Your task to perform on an android device: delete location history Image 0: 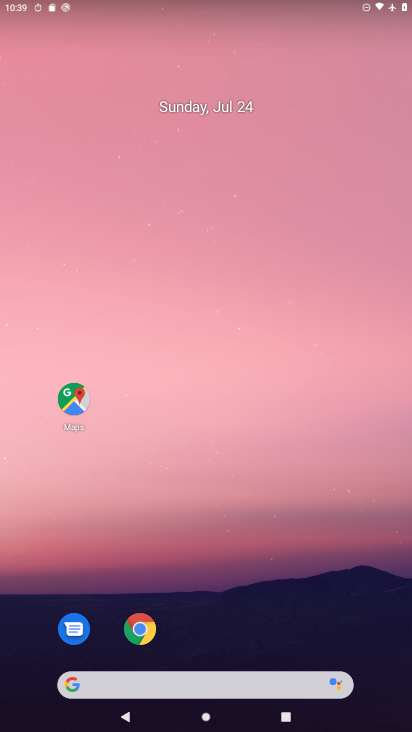
Step 0: drag from (184, 639) to (200, 104)
Your task to perform on an android device: delete location history Image 1: 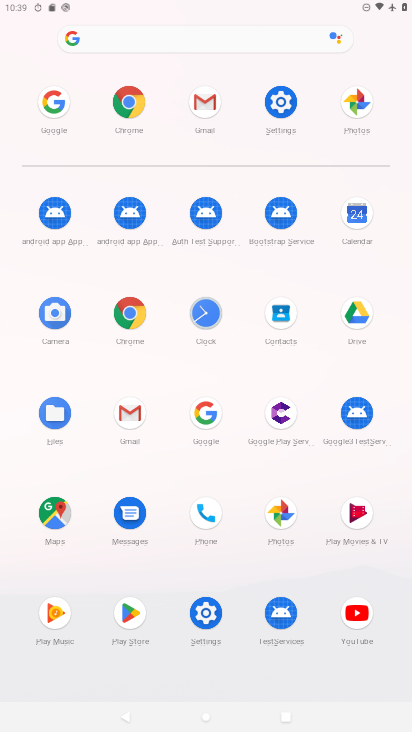
Step 1: click (280, 112)
Your task to perform on an android device: delete location history Image 2: 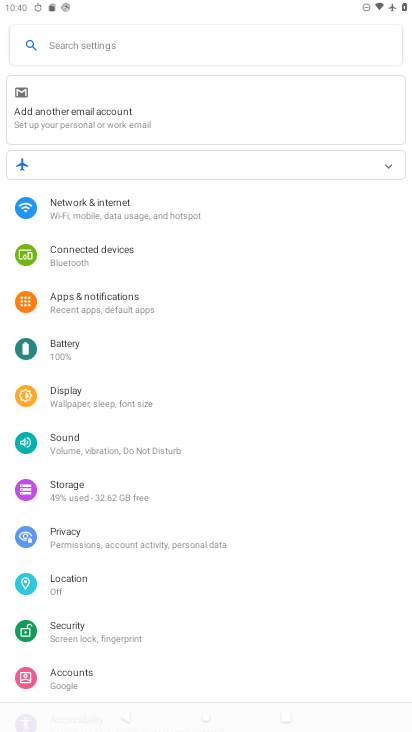
Step 2: click (112, 590)
Your task to perform on an android device: delete location history Image 3: 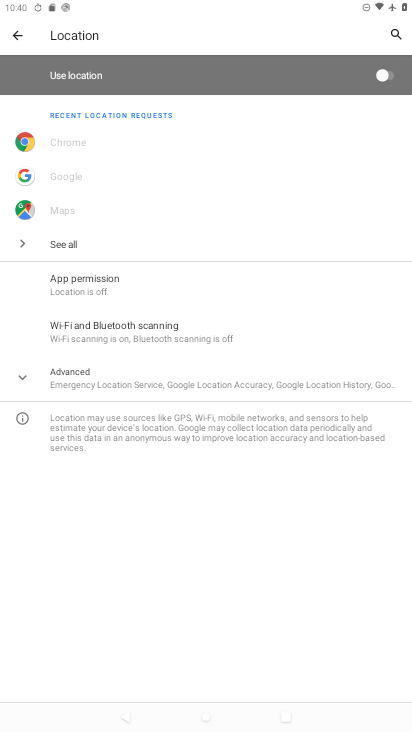
Step 3: click (155, 386)
Your task to perform on an android device: delete location history Image 4: 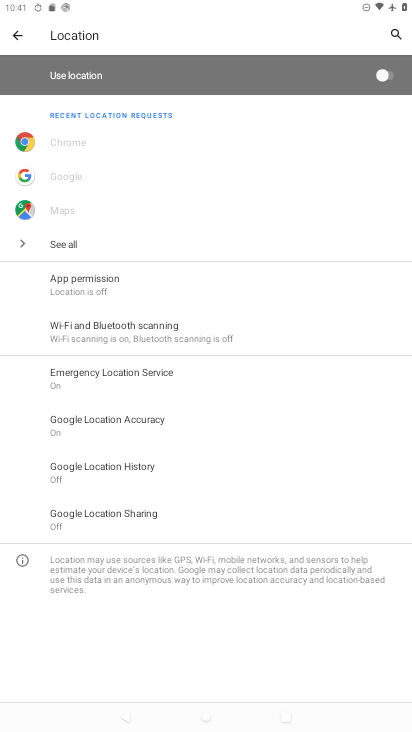
Step 4: click (136, 474)
Your task to perform on an android device: delete location history Image 5: 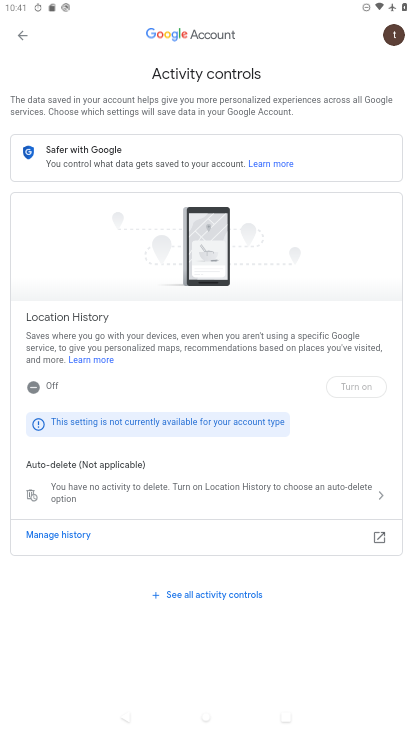
Step 5: click (174, 499)
Your task to perform on an android device: delete location history Image 6: 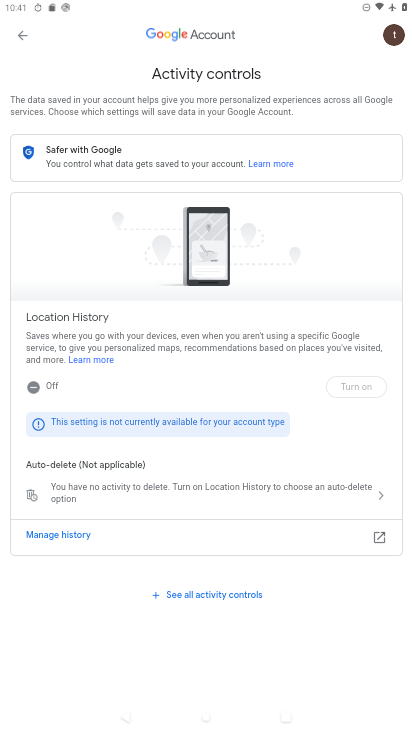
Step 6: click (366, 512)
Your task to perform on an android device: delete location history Image 7: 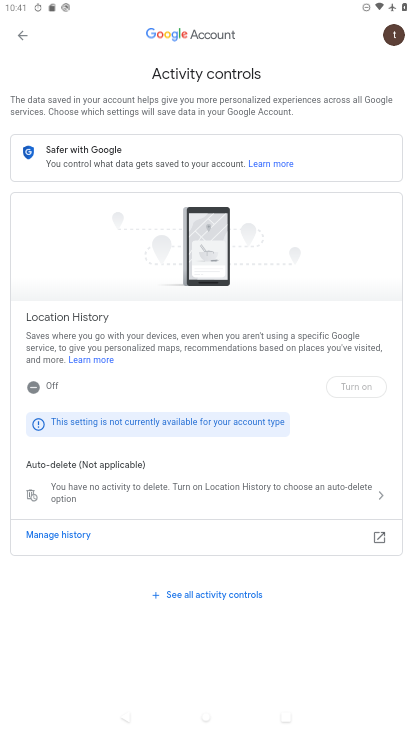
Step 7: click (373, 500)
Your task to perform on an android device: delete location history Image 8: 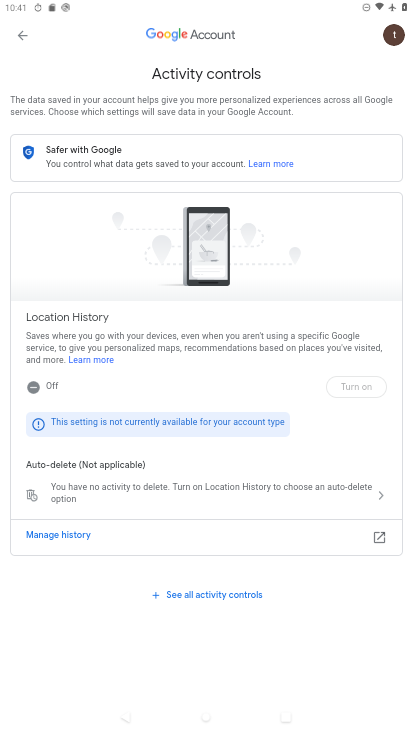
Step 8: click (373, 496)
Your task to perform on an android device: delete location history Image 9: 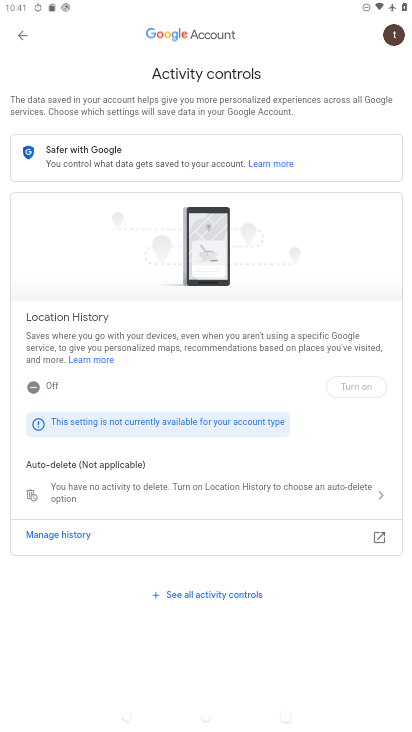
Step 9: task complete